Your task to perform on an android device: turn off wifi Image 0: 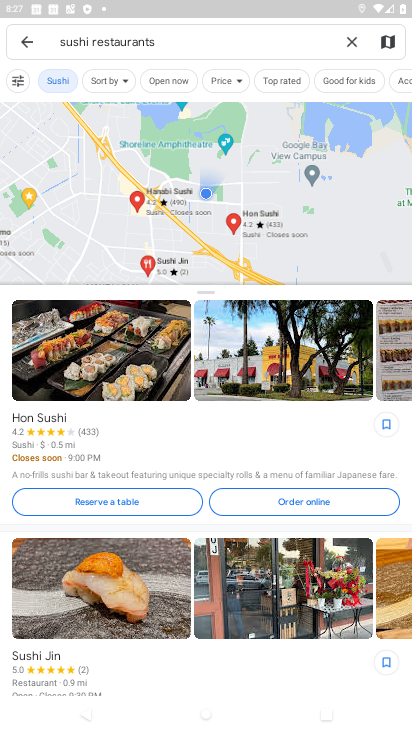
Step 0: press back button
Your task to perform on an android device: turn off wifi Image 1: 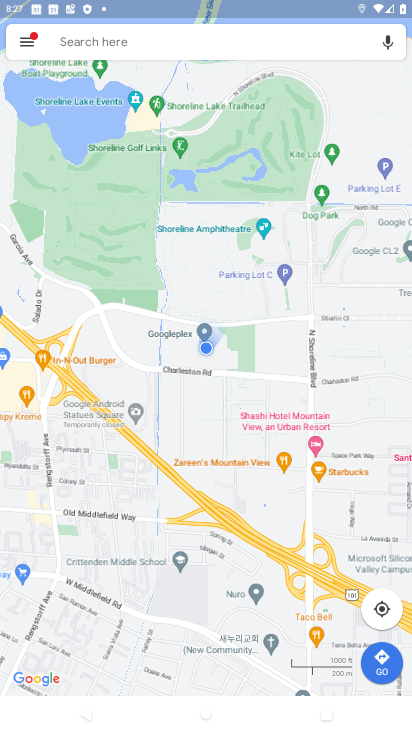
Step 1: press home button
Your task to perform on an android device: turn off wifi Image 2: 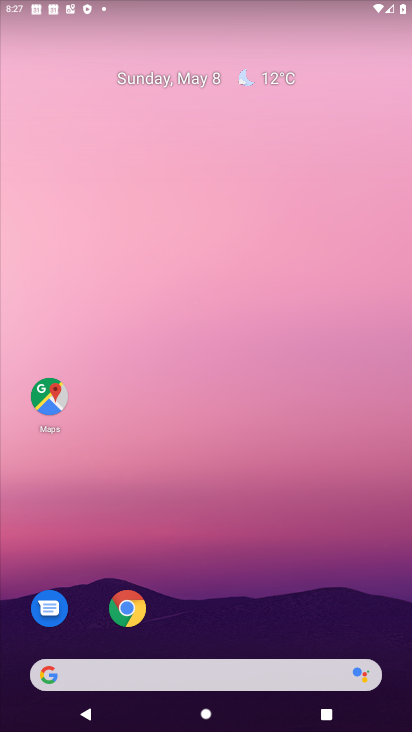
Step 2: drag from (246, 597) to (201, 0)
Your task to perform on an android device: turn off wifi Image 3: 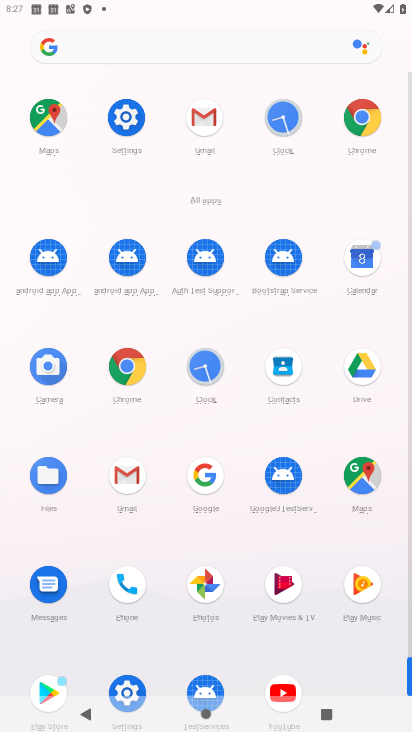
Step 3: click (125, 114)
Your task to perform on an android device: turn off wifi Image 4: 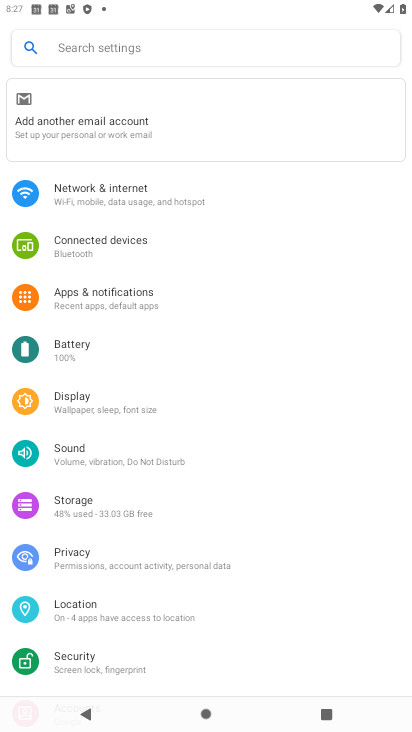
Step 4: click (139, 188)
Your task to perform on an android device: turn off wifi Image 5: 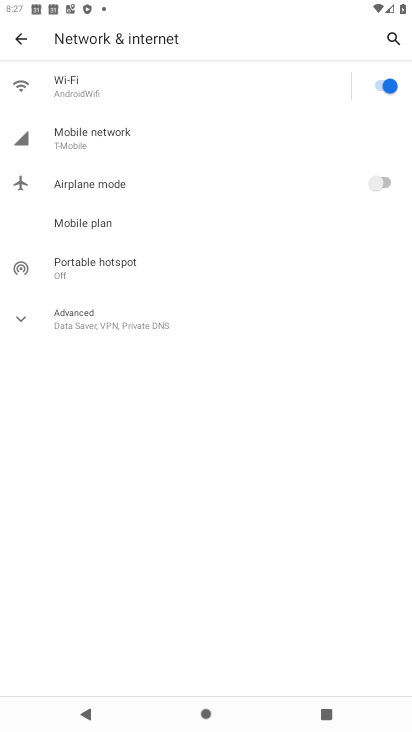
Step 5: click (383, 81)
Your task to perform on an android device: turn off wifi Image 6: 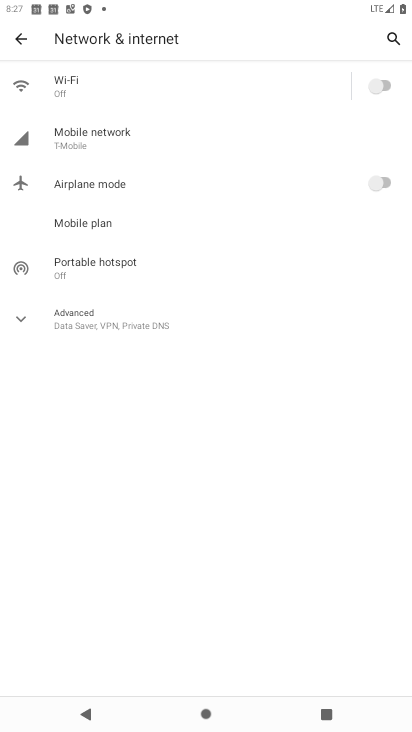
Step 6: task complete